Your task to perform on an android device: set the timer Image 0: 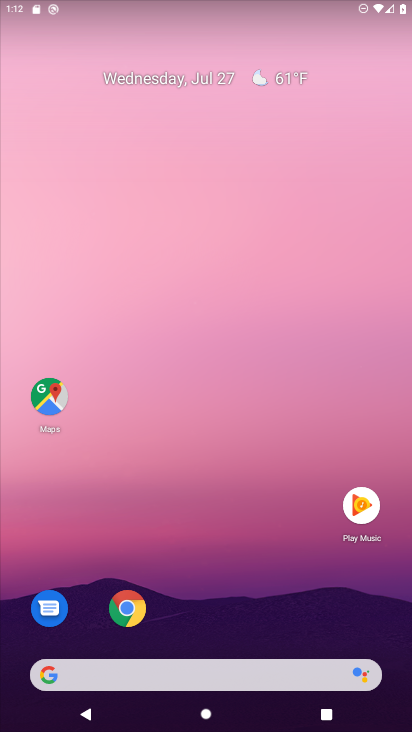
Step 0: press home button
Your task to perform on an android device: set the timer Image 1: 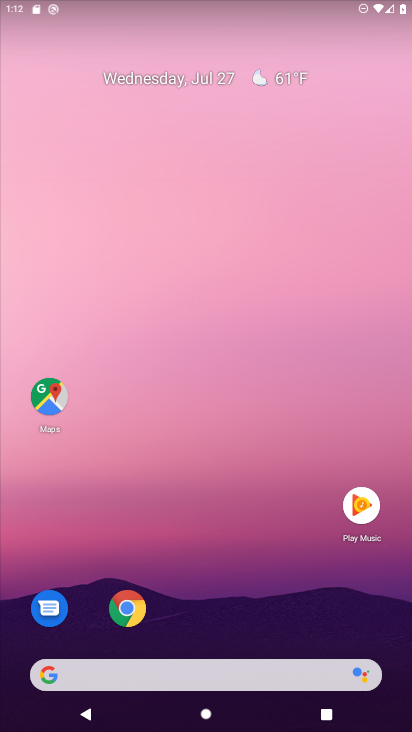
Step 1: drag from (343, 602) to (351, 216)
Your task to perform on an android device: set the timer Image 2: 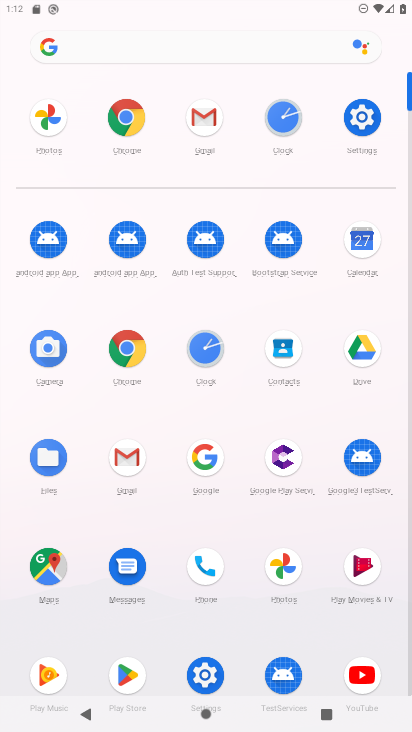
Step 2: click (206, 347)
Your task to perform on an android device: set the timer Image 3: 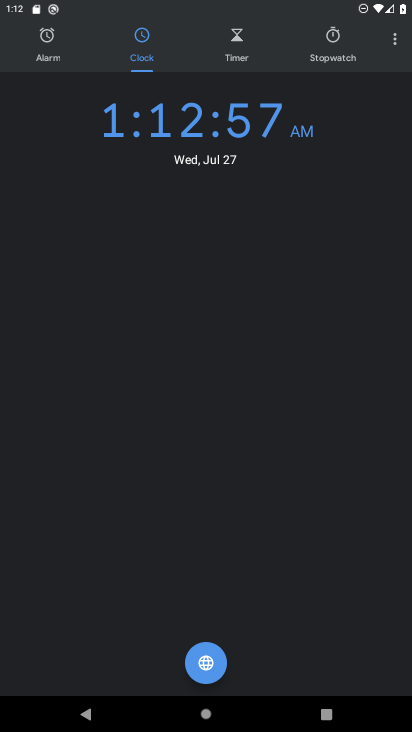
Step 3: click (232, 57)
Your task to perform on an android device: set the timer Image 4: 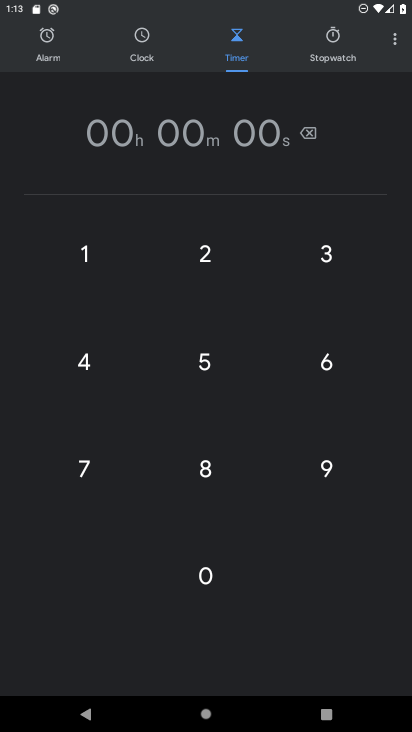
Step 4: click (213, 359)
Your task to perform on an android device: set the timer Image 5: 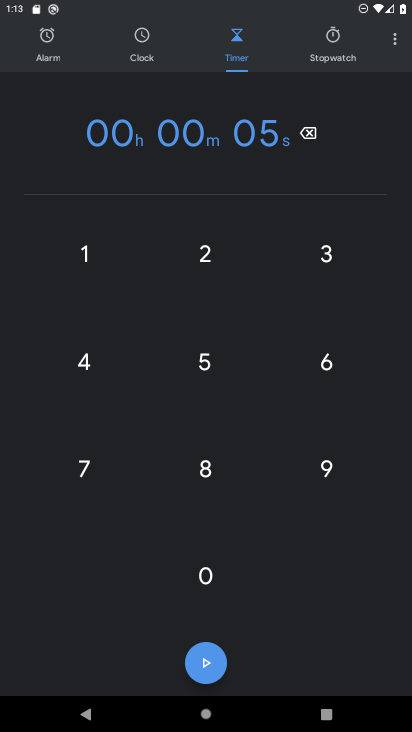
Step 5: task complete